Your task to perform on an android device: change your default location settings in chrome Image 0: 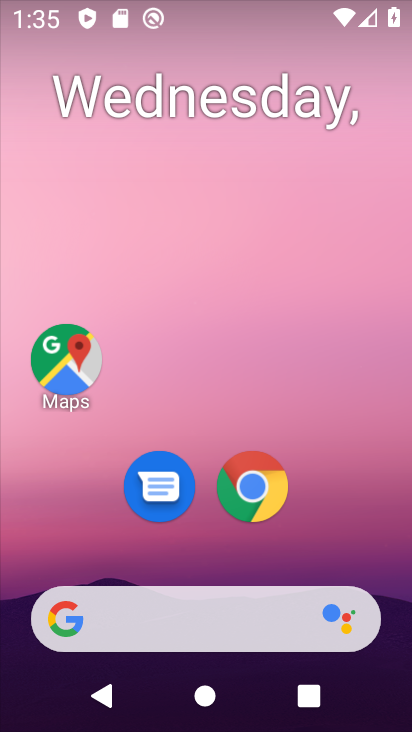
Step 0: click (257, 482)
Your task to perform on an android device: change your default location settings in chrome Image 1: 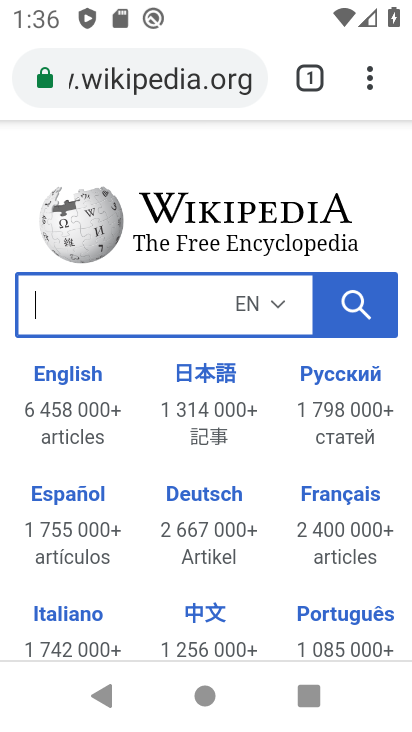
Step 1: press home button
Your task to perform on an android device: change your default location settings in chrome Image 2: 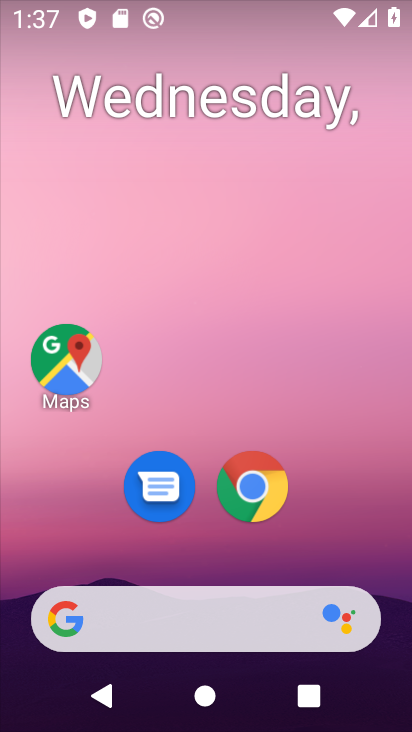
Step 2: click (273, 480)
Your task to perform on an android device: change your default location settings in chrome Image 3: 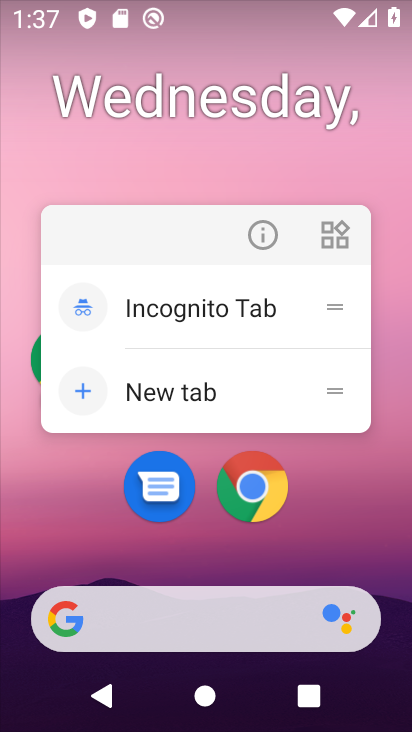
Step 3: click (273, 480)
Your task to perform on an android device: change your default location settings in chrome Image 4: 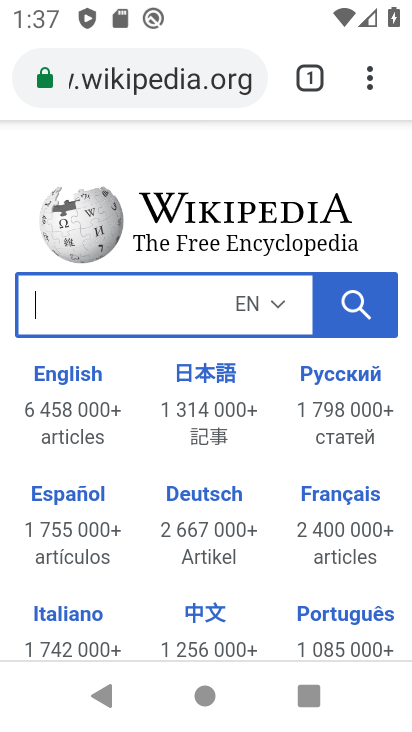
Step 4: click (369, 81)
Your task to perform on an android device: change your default location settings in chrome Image 5: 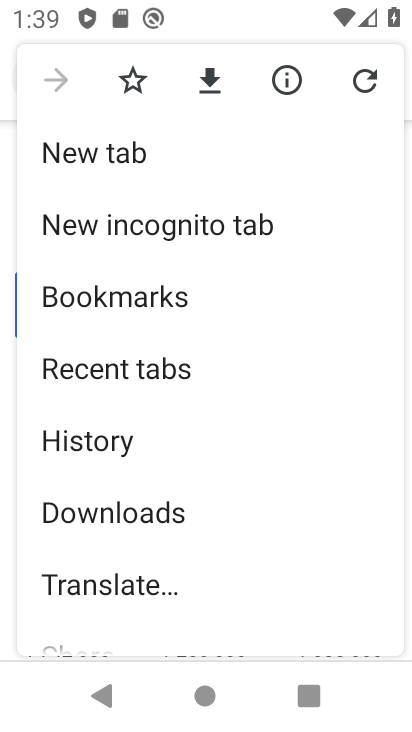
Step 5: drag from (245, 586) to (263, 166)
Your task to perform on an android device: change your default location settings in chrome Image 6: 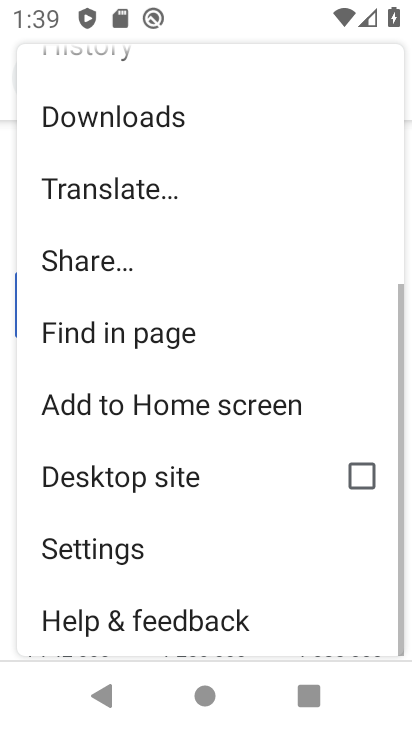
Step 6: click (162, 562)
Your task to perform on an android device: change your default location settings in chrome Image 7: 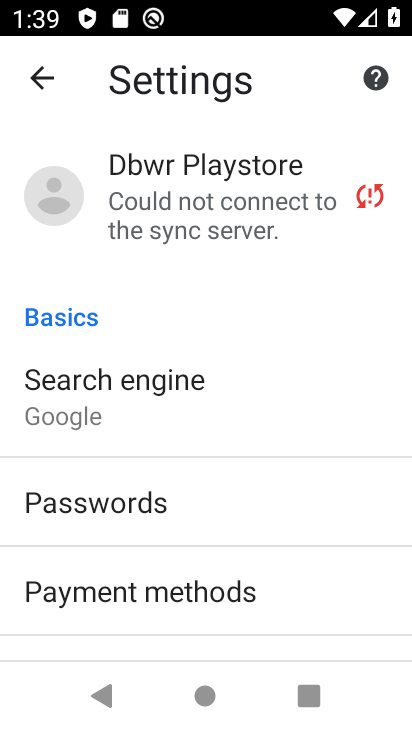
Step 7: drag from (246, 587) to (329, 12)
Your task to perform on an android device: change your default location settings in chrome Image 8: 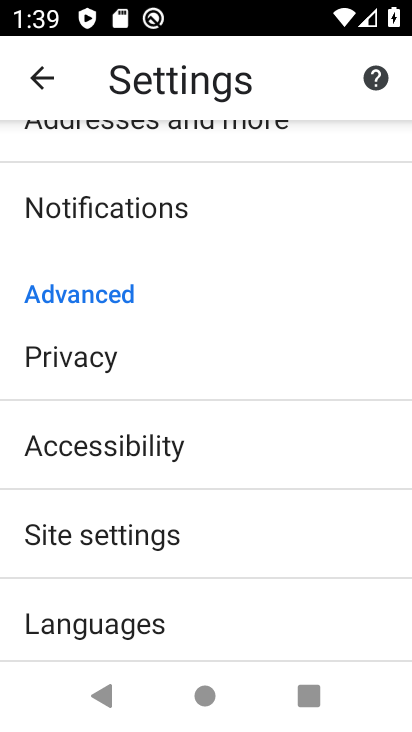
Step 8: click (157, 554)
Your task to perform on an android device: change your default location settings in chrome Image 9: 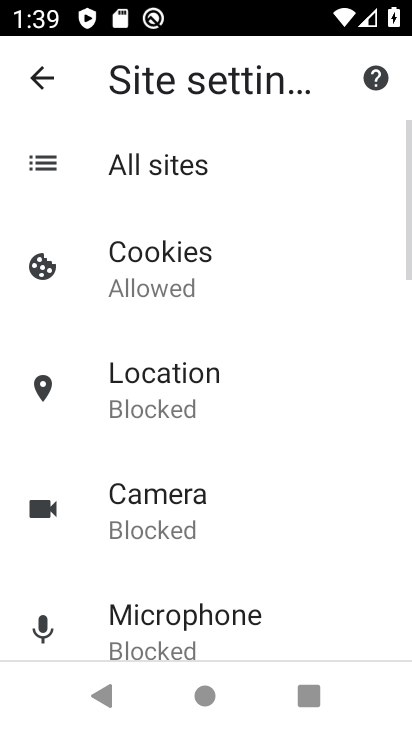
Step 9: drag from (222, 630) to (318, 94)
Your task to perform on an android device: change your default location settings in chrome Image 10: 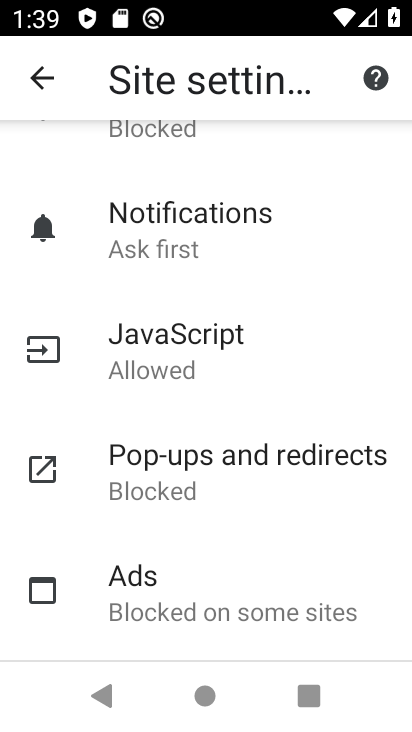
Step 10: drag from (269, 209) to (292, 546)
Your task to perform on an android device: change your default location settings in chrome Image 11: 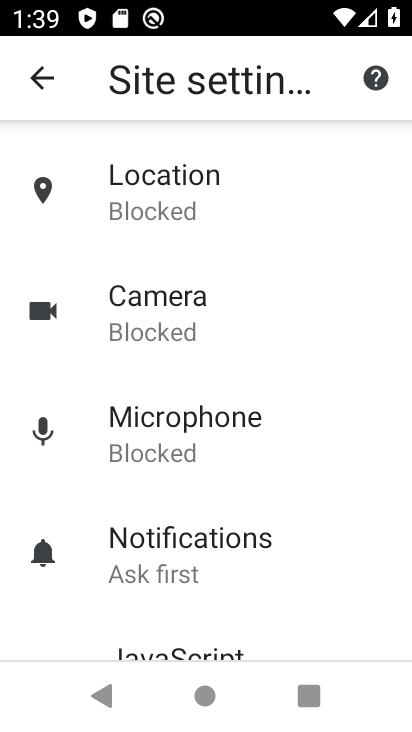
Step 11: click (259, 181)
Your task to perform on an android device: change your default location settings in chrome Image 12: 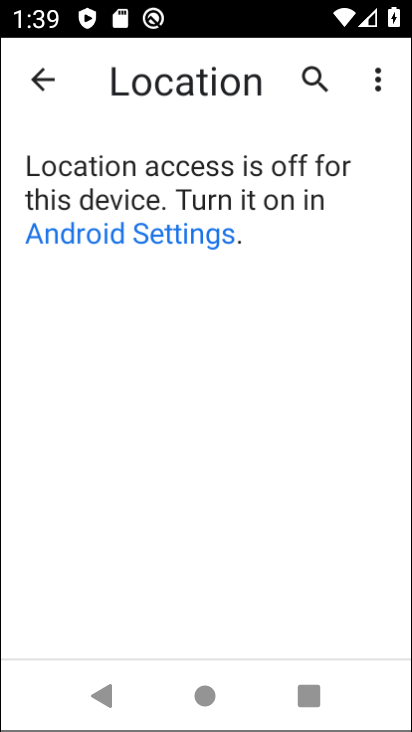
Step 12: task complete